Your task to perform on an android device: Go to settings Image 0: 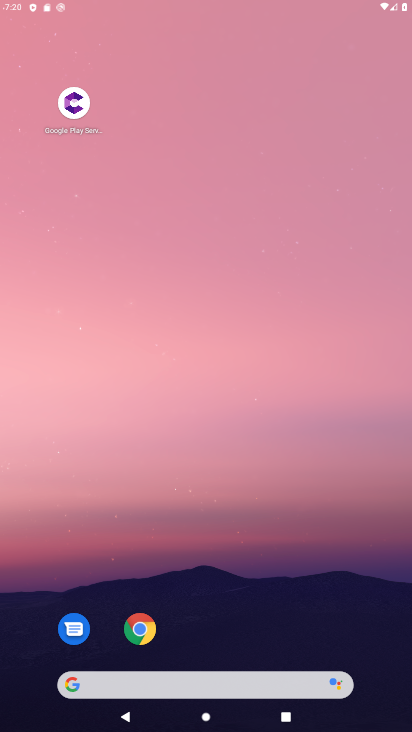
Step 0: drag from (351, 505) to (358, 234)
Your task to perform on an android device: Go to settings Image 1: 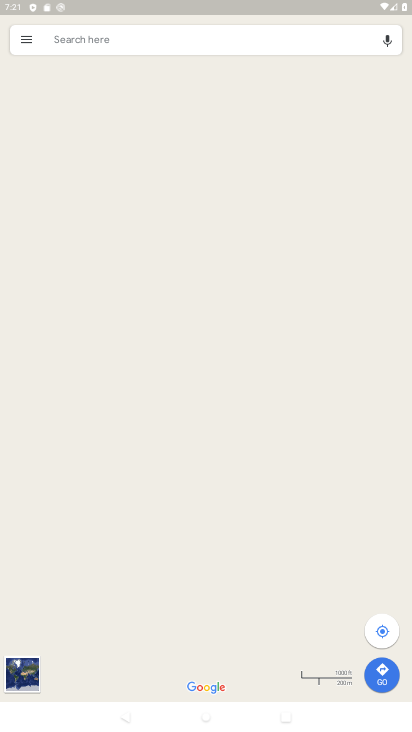
Step 1: press home button
Your task to perform on an android device: Go to settings Image 2: 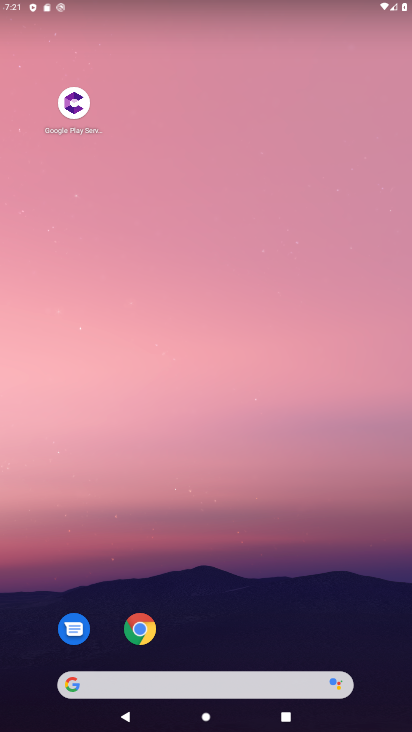
Step 2: drag from (325, 608) to (321, 257)
Your task to perform on an android device: Go to settings Image 3: 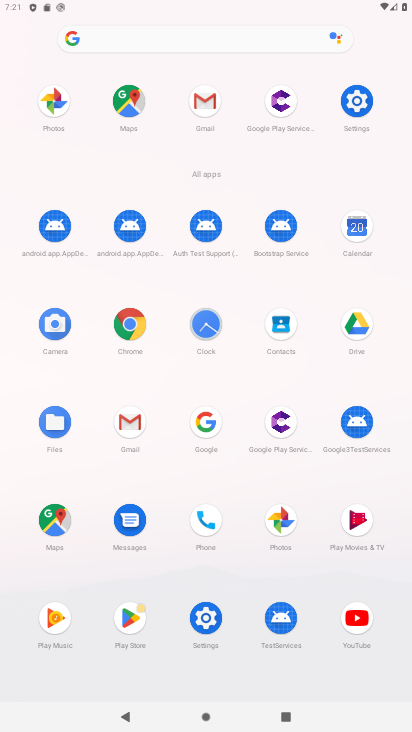
Step 3: click (360, 110)
Your task to perform on an android device: Go to settings Image 4: 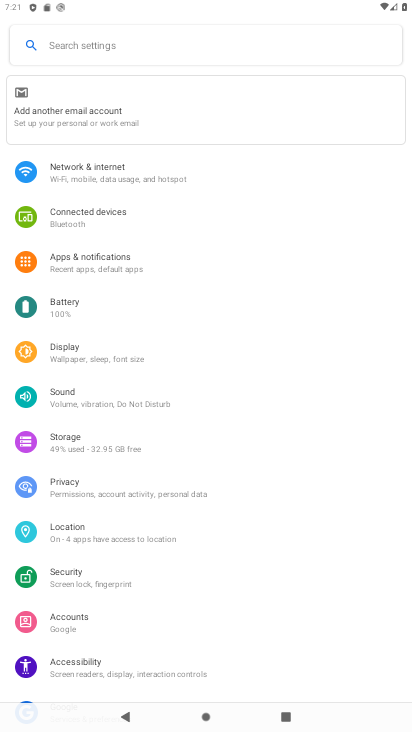
Step 4: task complete